Your task to perform on an android device: Add "acer predator" to the cart on newegg Image 0: 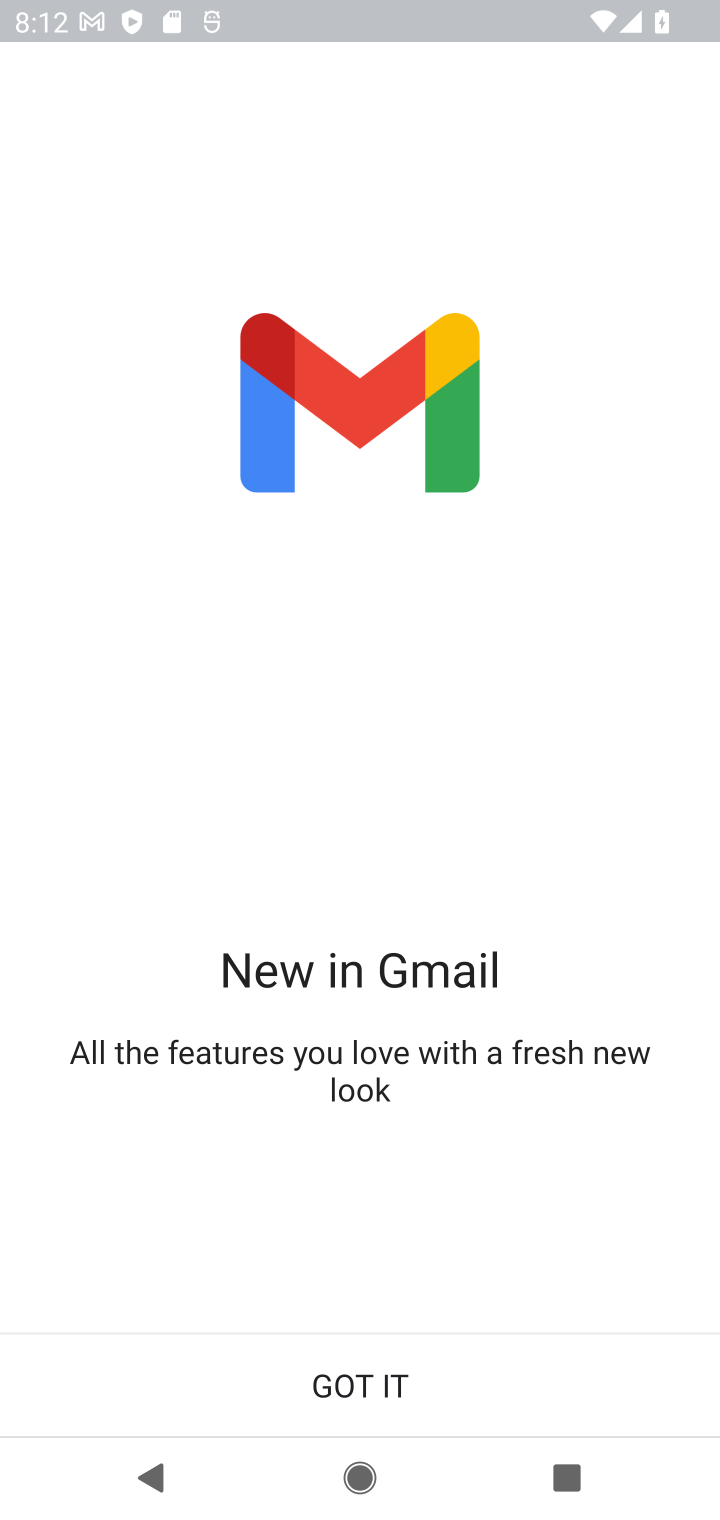
Step 0: press home button
Your task to perform on an android device: Add "acer predator" to the cart on newegg Image 1: 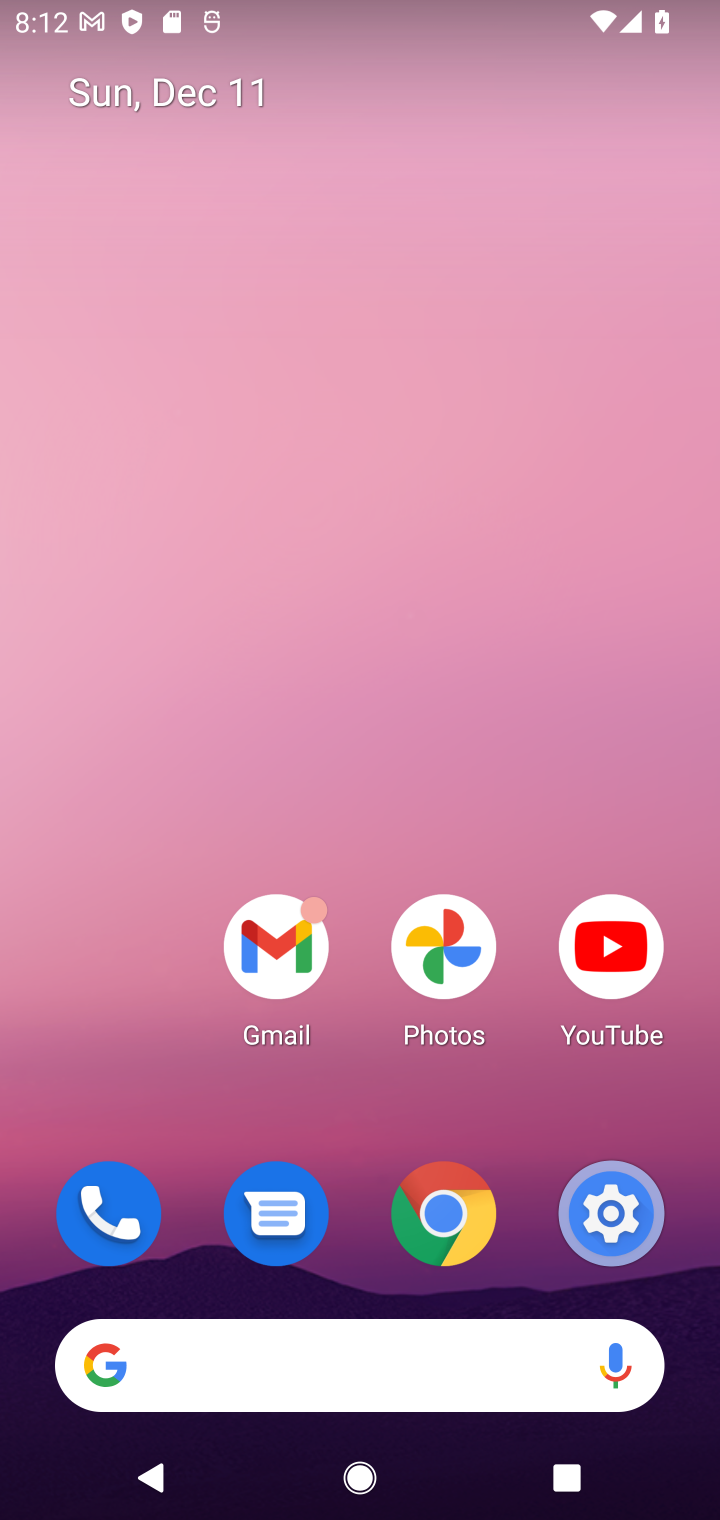
Step 1: click (327, 1333)
Your task to perform on an android device: Add "acer predator" to the cart on newegg Image 2: 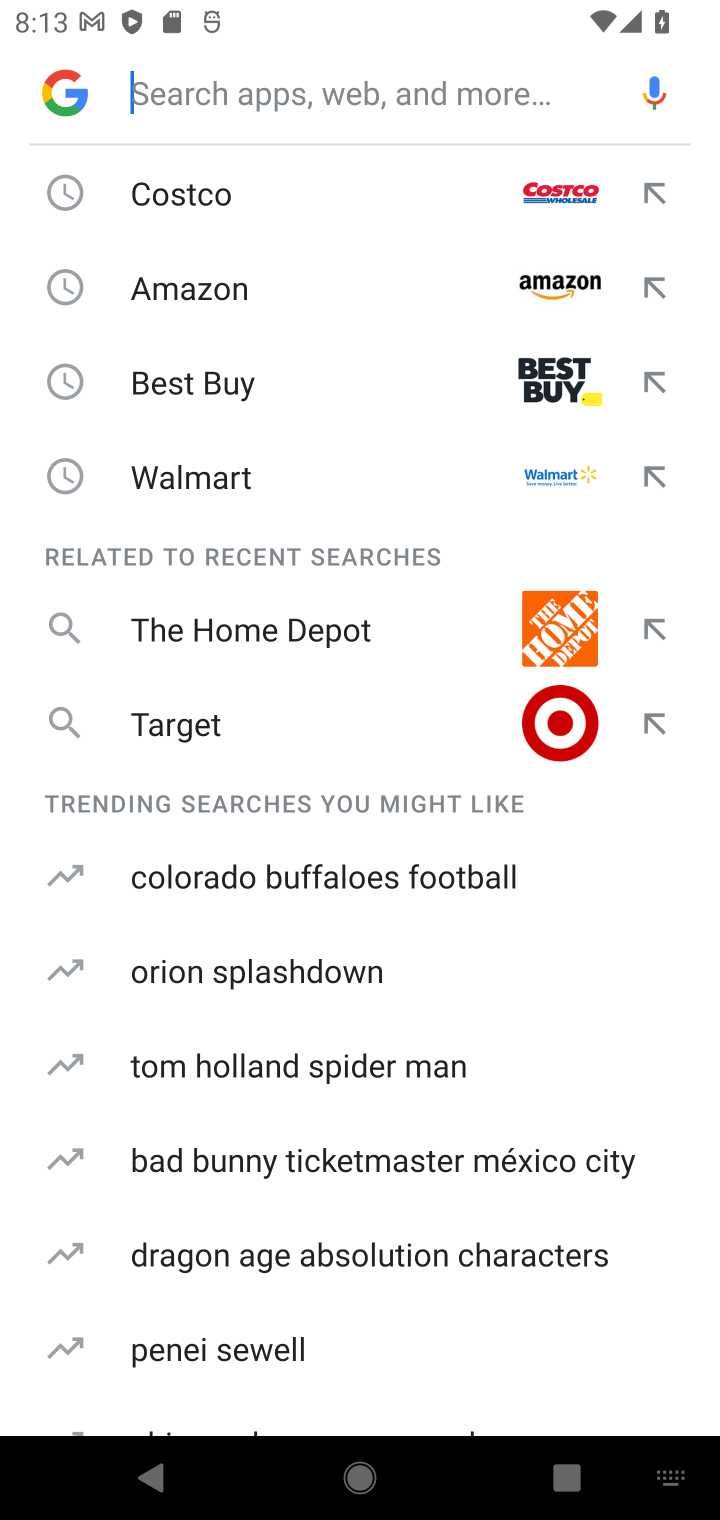
Step 2: type "newegg"
Your task to perform on an android device: Add "acer predator" to the cart on newegg Image 3: 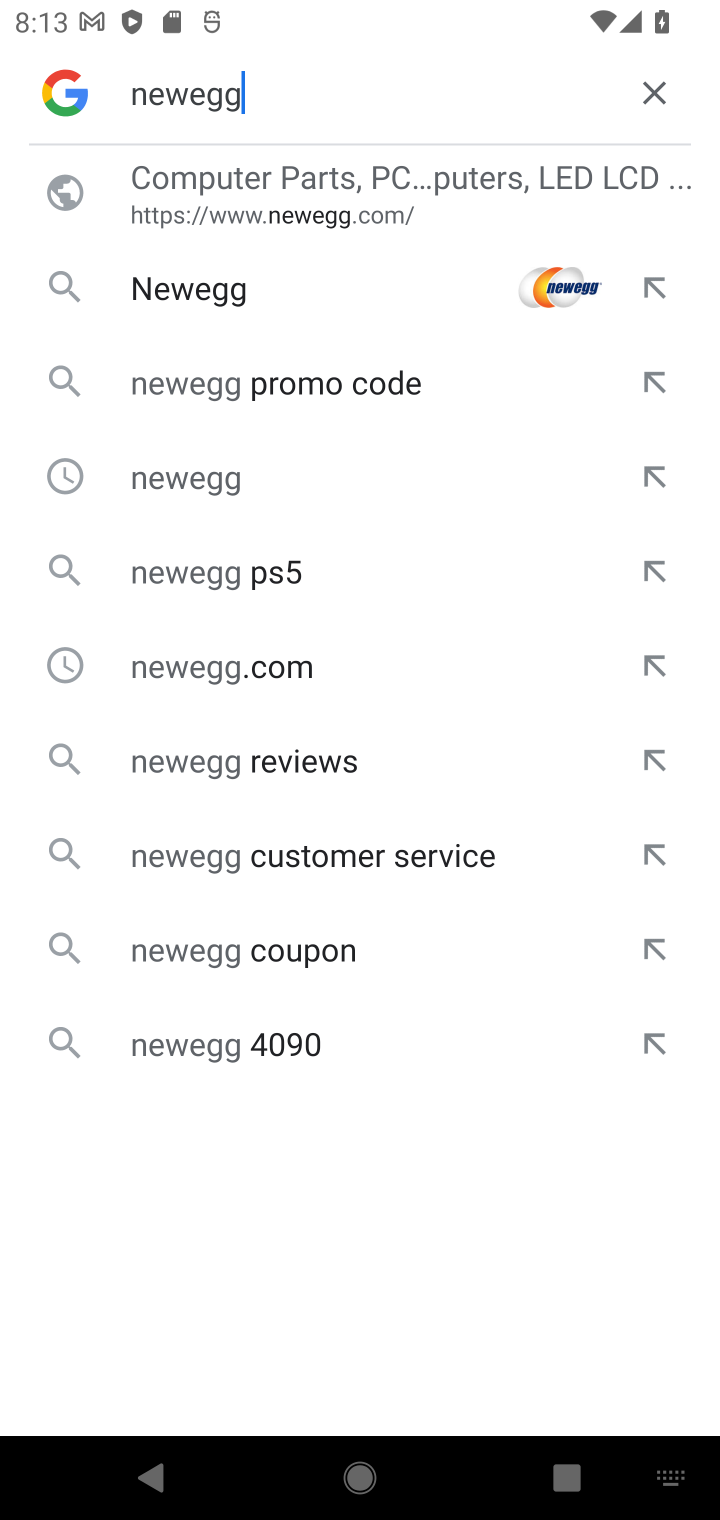
Step 3: click (385, 173)
Your task to perform on an android device: Add "acer predator" to the cart on newegg Image 4: 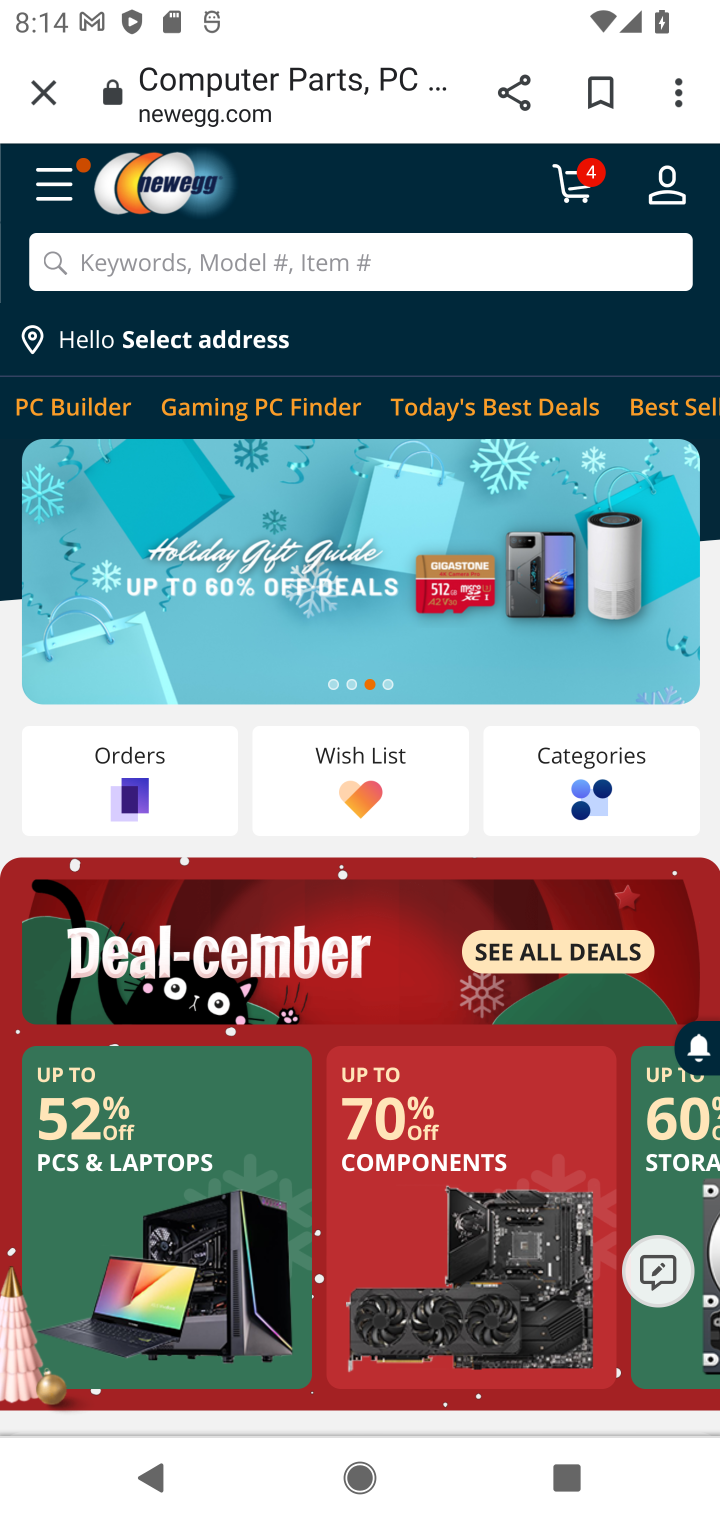
Step 4: task complete